Your task to perform on an android device: Search for seafood restaurants on Google Maps Image 0: 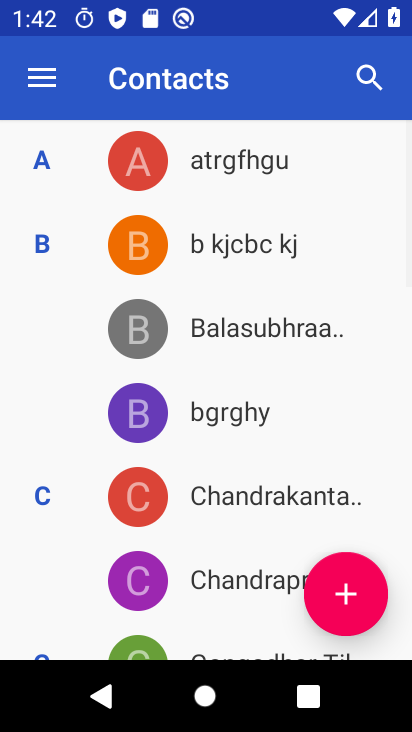
Step 0: press back button
Your task to perform on an android device: Search for seafood restaurants on Google Maps Image 1: 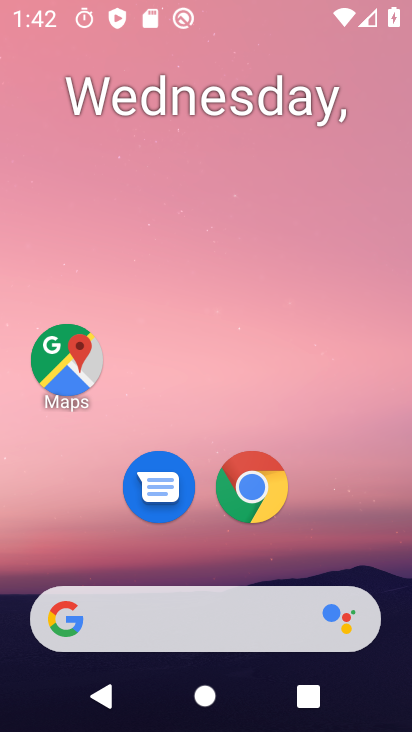
Step 1: press back button
Your task to perform on an android device: Search for seafood restaurants on Google Maps Image 2: 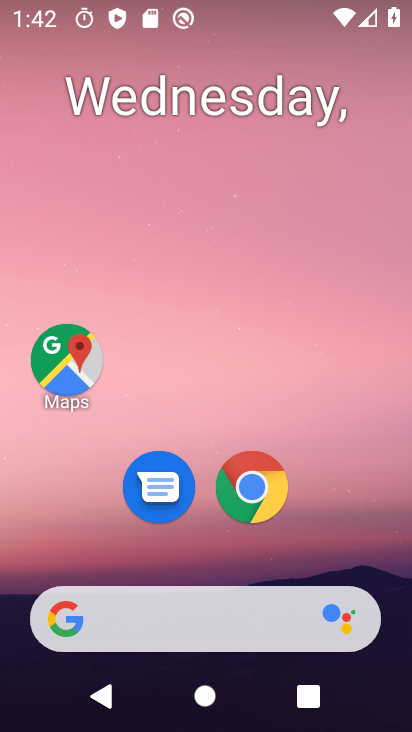
Step 2: click (76, 366)
Your task to perform on an android device: Search for seafood restaurants on Google Maps Image 3: 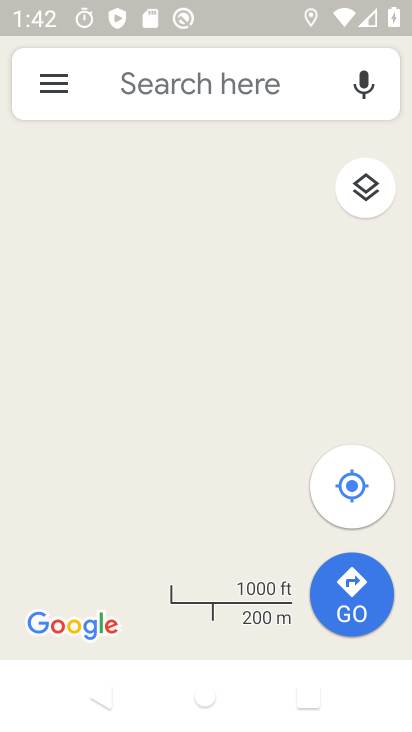
Step 3: click (181, 87)
Your task to perform on an android device: Search for seafood restaurants on Google Maps Image 4: 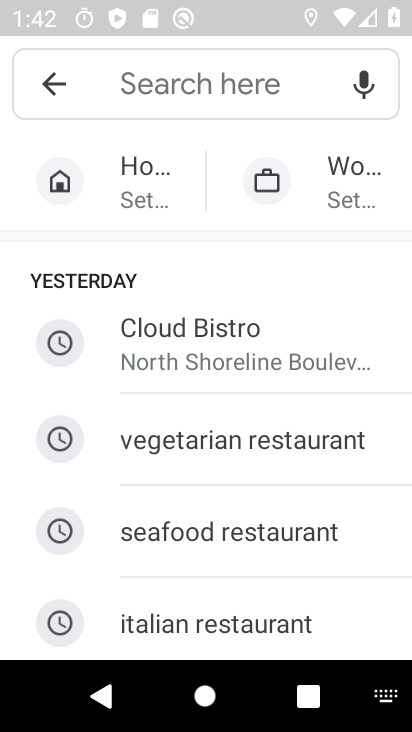
Step 4: click (182, 518)
Your task to perform on an android device: Search for seafood restaurants on Google Maps Image 5: 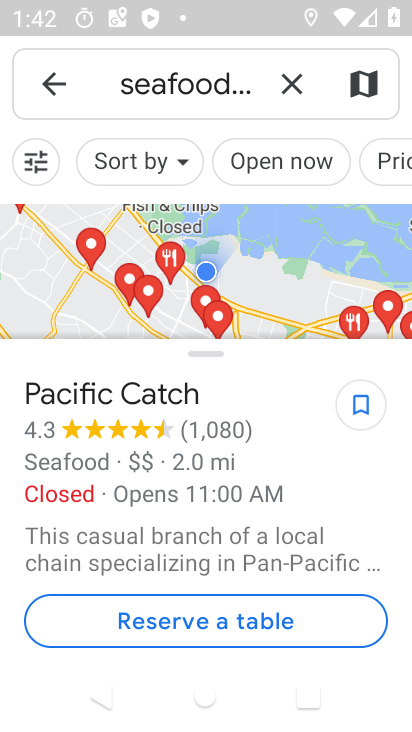
Step 5: task complete